Your task to perform on an android device: find snoozed emails in the gmail app Image 0: 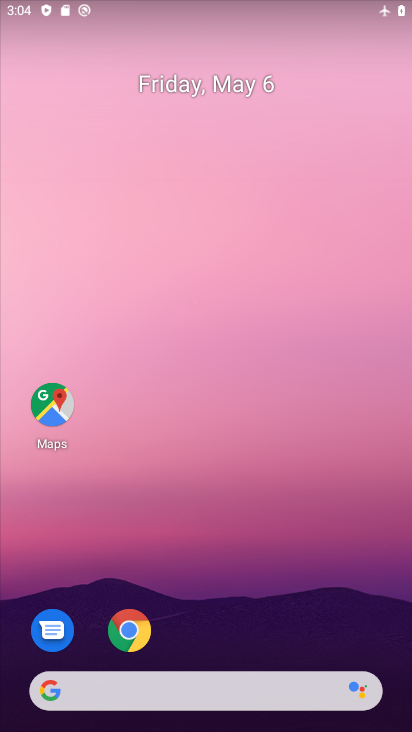
Step 0: drag from (257, 634) to (340, 1)
Your task to perform on an android device: find snoozed emails in the gmail app Image 1: 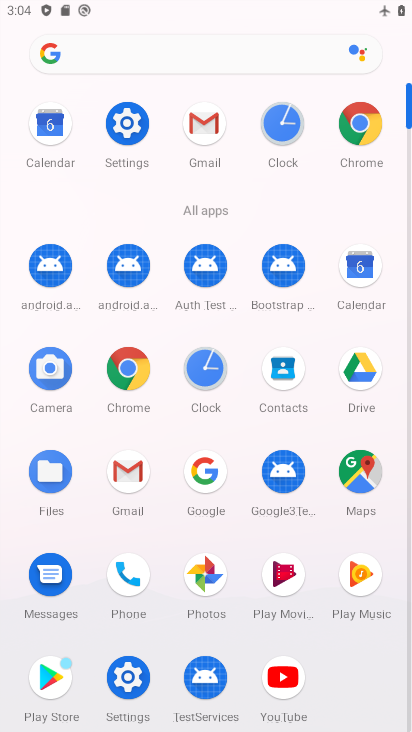
Step 1: click (125, 477)
Your task to perform on an android device: find snoozed emails in the gmail app Image 2: 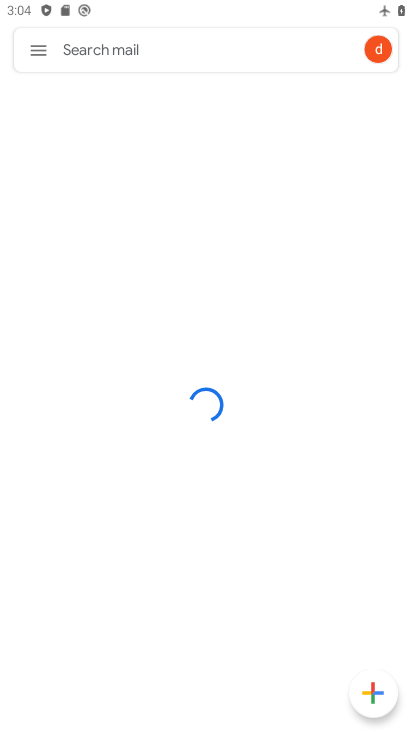
Step 2: click (42, 60)
Your task to perform on an android device: find snoozed emails in the gmail app Image 3: 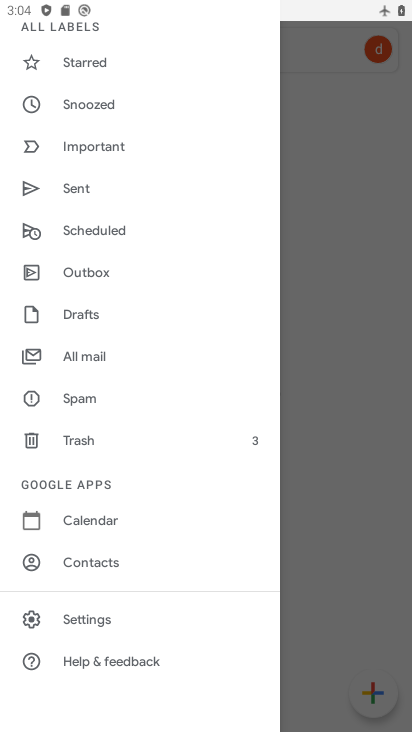
Step 3: click (95, 102)
Your task to perform on an android device: find snoozed emails in the gmail app Image 4: 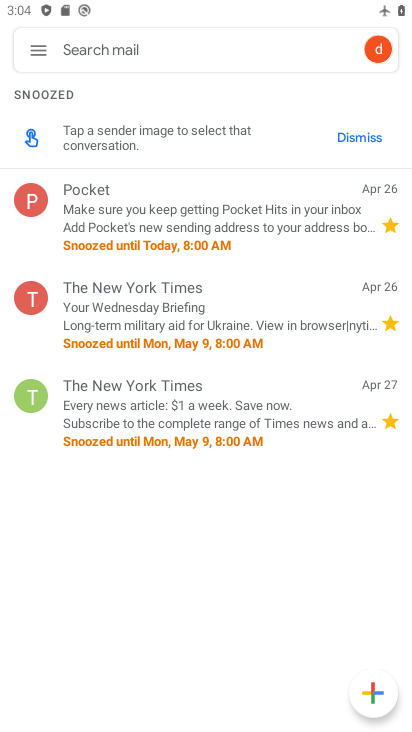
Step 4: task complete